Your task to perform on an android device: Open ESPN.com Image 0: 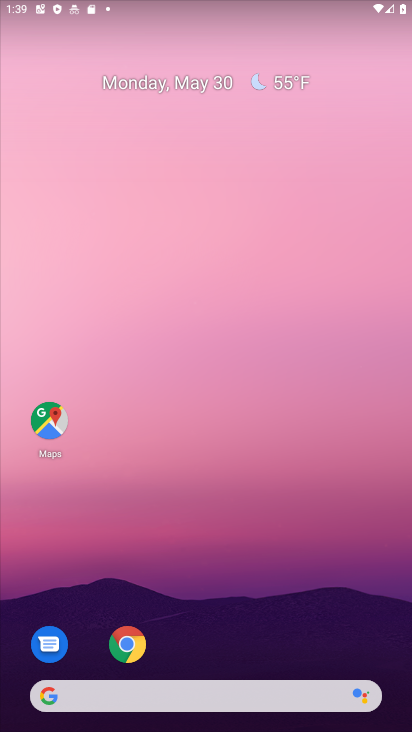
Step 0: click (253, 686)
Your task to perform on an android device: Open ESPN.com Image 1: 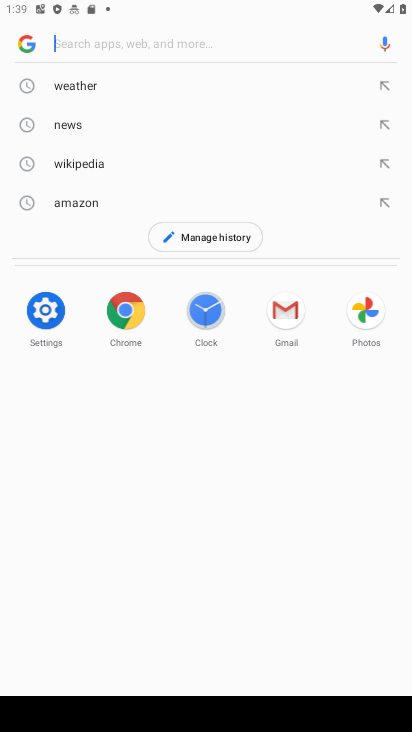
Step 1: type "espn.com"
Your task to perform on an android device: Open ESPN.com Image 2: 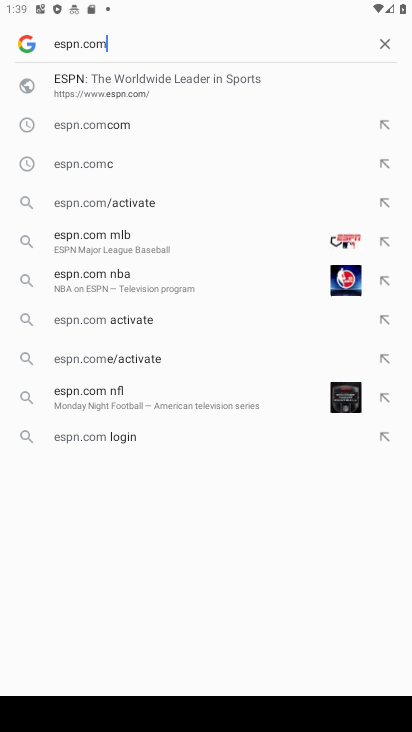
Step 2: click (74, 108)
Your task to perform on an android device: Open ESPN.com Image 3: 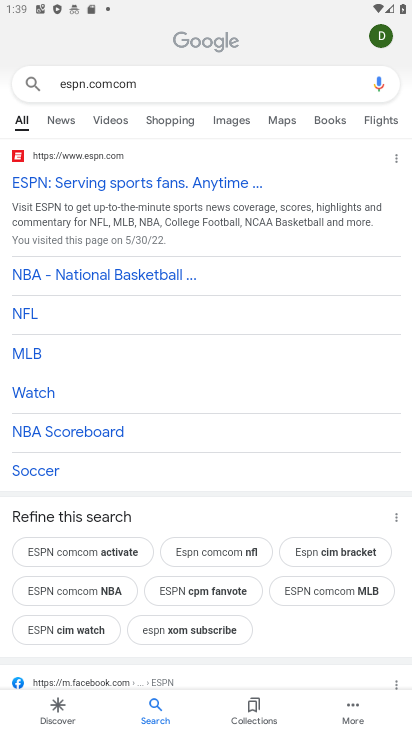
Step 3: click (93, 184)
Your task to perform on an android device: Open ESPN.com Image 4: 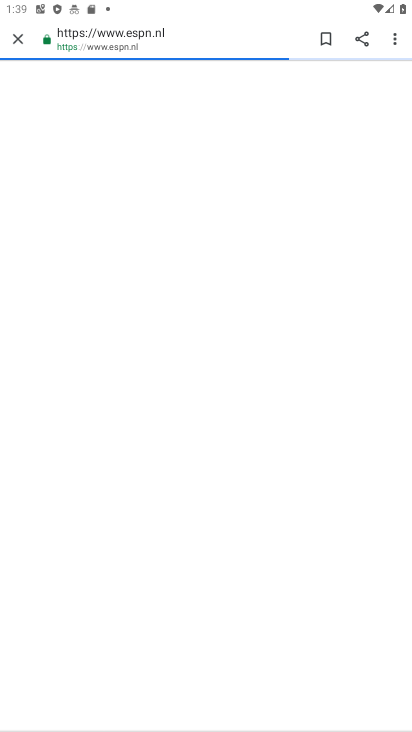
Step 4: task complete